Your task to perform on an android device: turn off wifi Image 0: 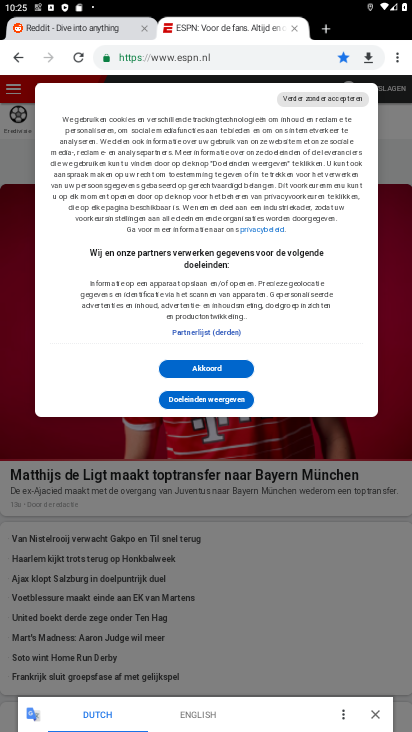
Step 0: drag from (256, 9) to (185, 404)
Your task to perform on an android device: turn off wifi Image 1: 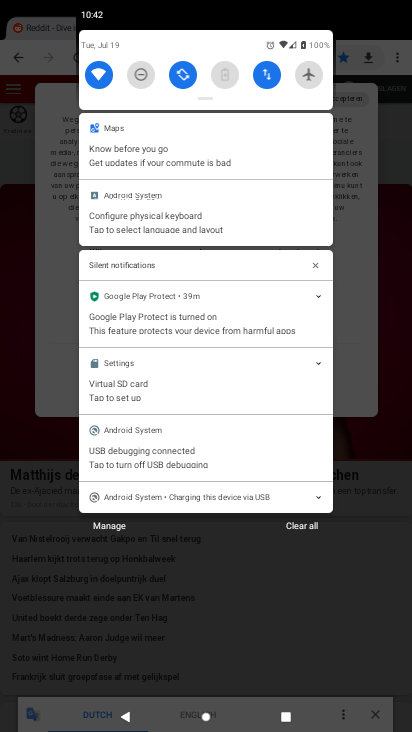
Step 1: click (106, 64)
Your task to perform on an android device: turn off wifi Image 2: 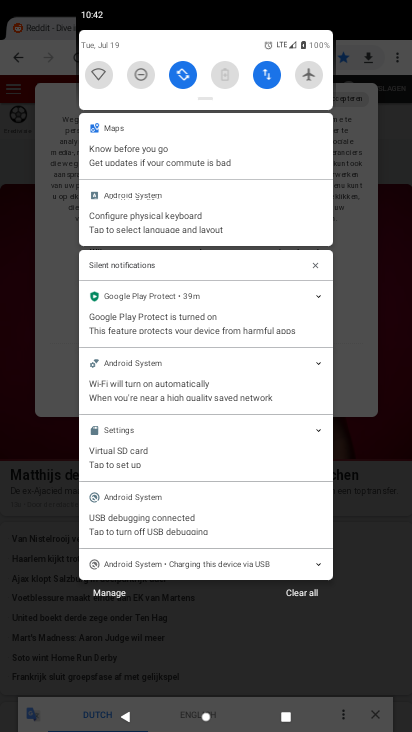
Step 2: task complete